Your task to perform on an android device: manage bookmarks in the chrome app Image 0: 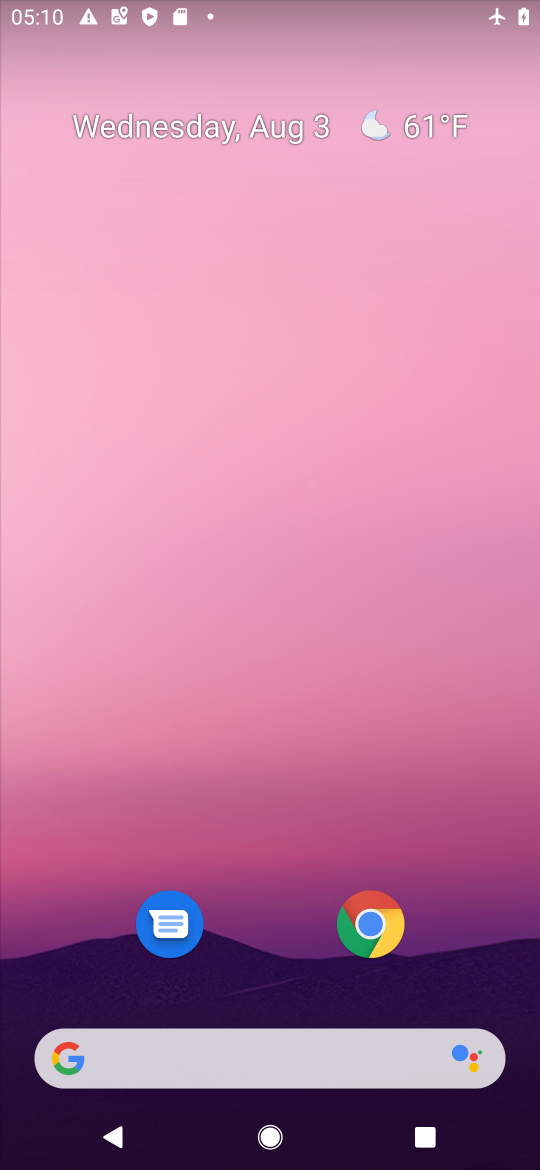
Step 0: click (341, 927)
Your task to perform on an android device: manage bookmarks in the chrome app Image 1: 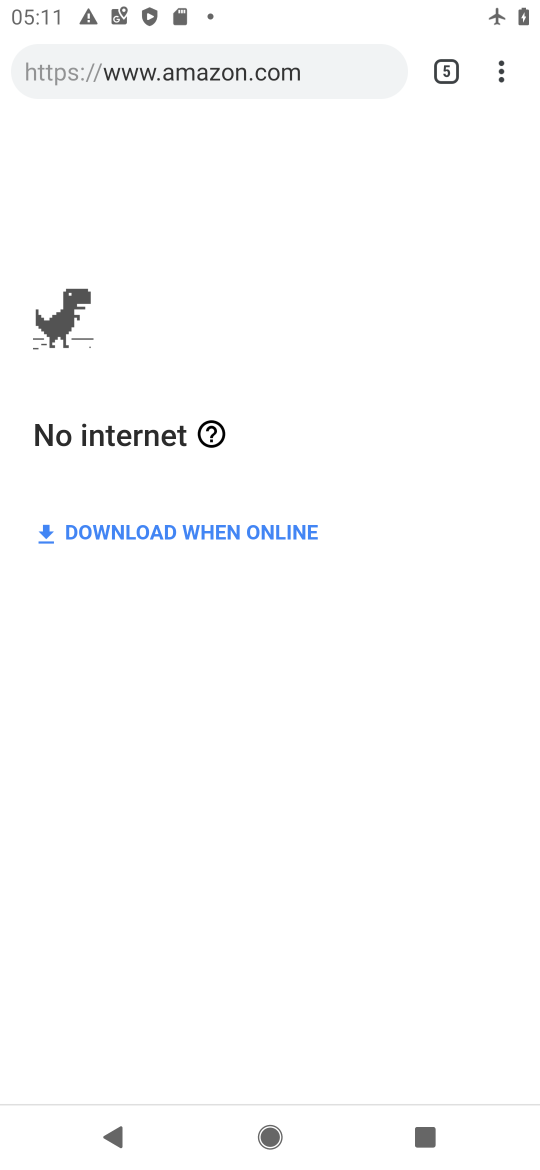
Step 1: click (498, 70)
Your task to perform on an android device: manage bookmarks in the chrome app Image 2: 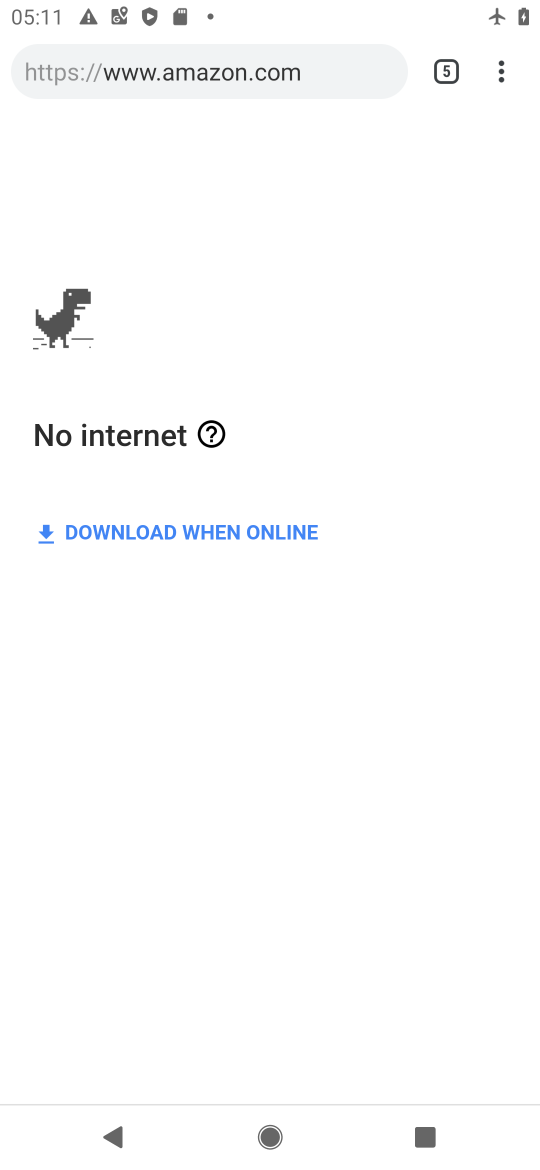
Step 2: click (498, 70)
Your task to perform on an android device: manage bookmarks in the chrome app Image 3: 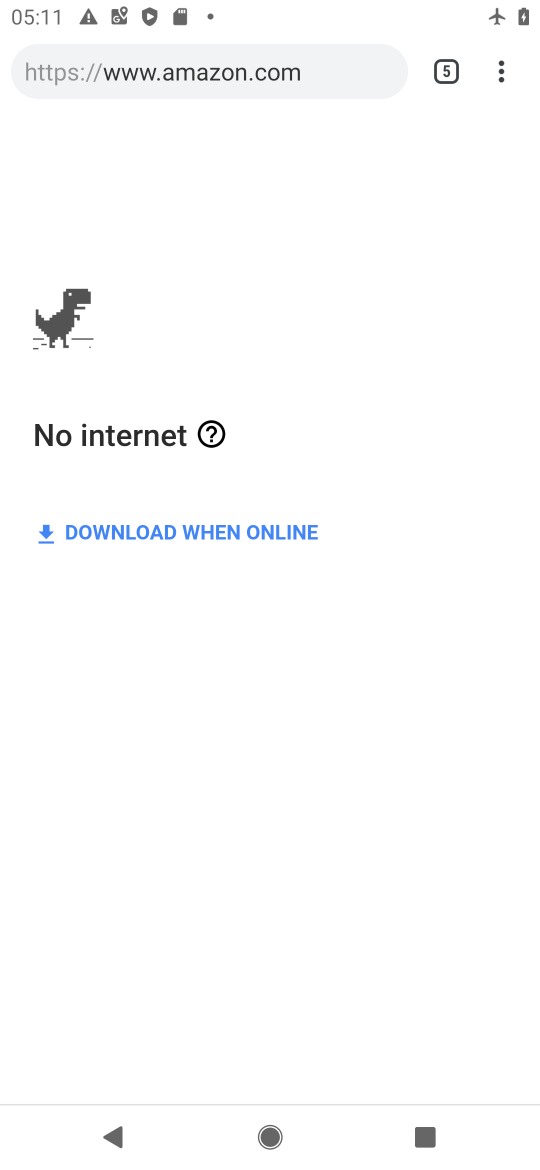
Step 3: drag from (498, 70) to (370, 281)
Your task to perform on an android device: manage bookmarks in the chrome app Image 4: 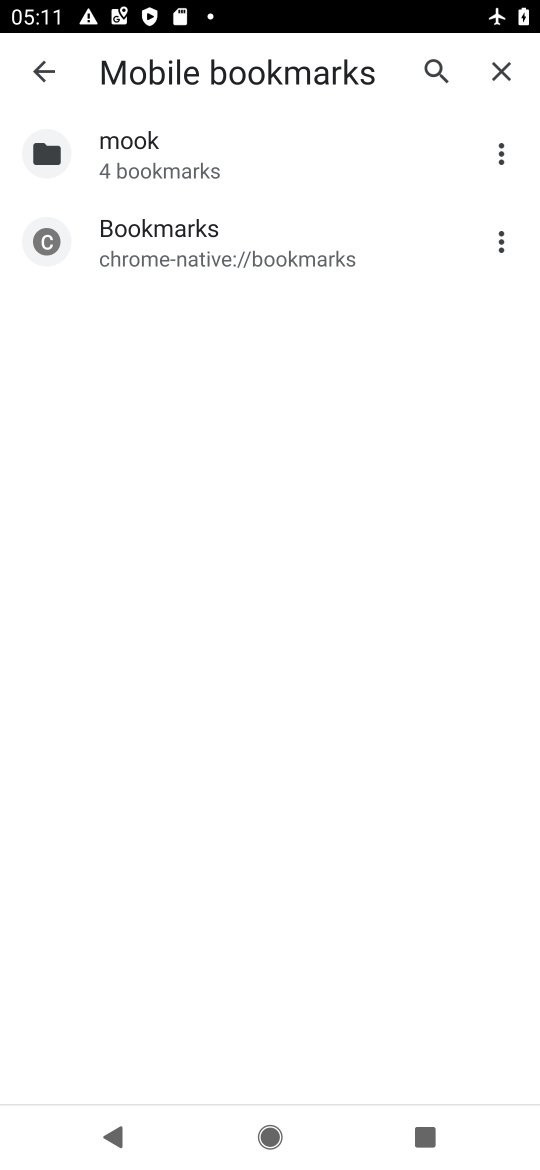
Step 4: click (501, 235)
Your task to perform on an android device: manage bookmarks in the chrome app Image 5: 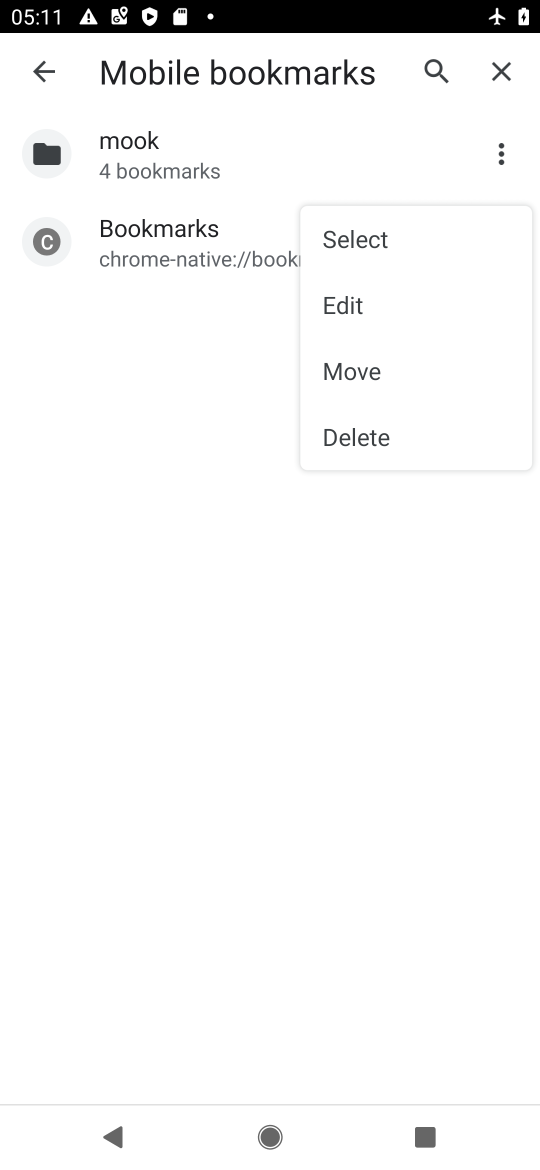
Step 5: click (386, 450)
Your task to perform on an android device: manage bookmarks in the chrome app Image 6: 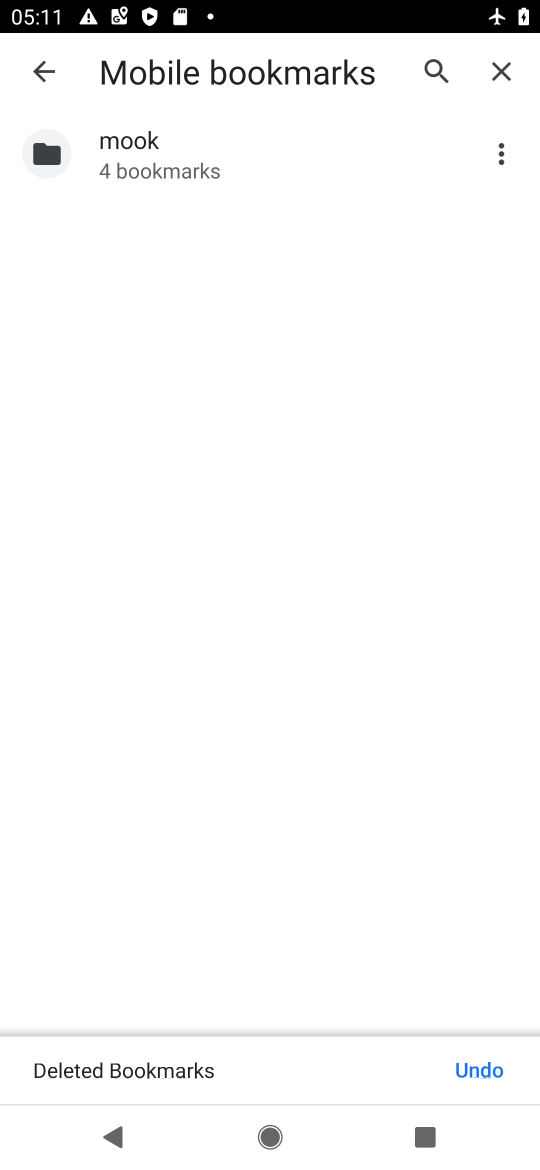
Step 6: task complete